Your task to perform on an android device: turn off notifications settings in the gmail app Image 0: 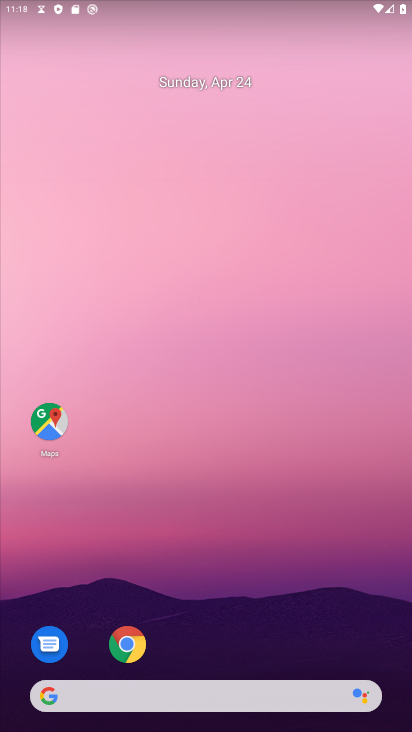
Step 0: drag from (372, 639) to (404, 13)
Your task to perform on an android device: turn off notifications settings in the gmail app Image 1: 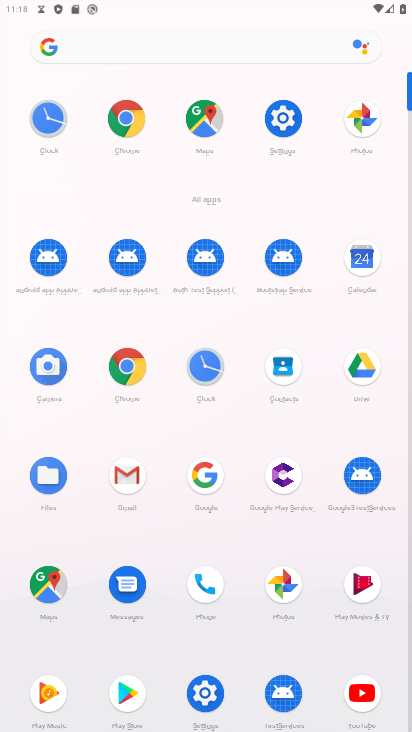
Step 1: click (130, 479)
Your task to perform on an android device: turn off notifications settings in the gmail app Image 2: 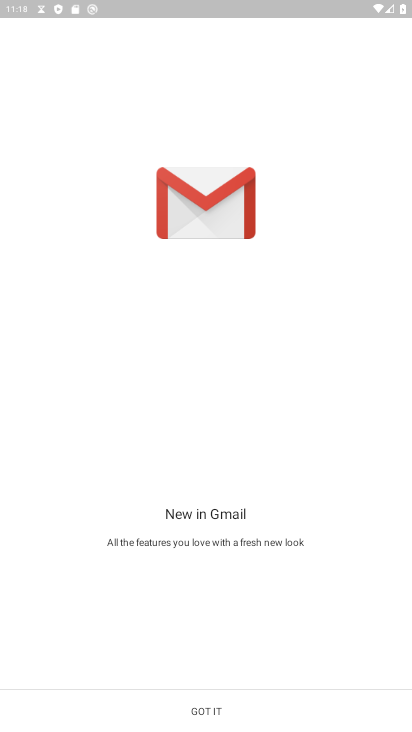
Step 2: click (210, 710)
Your task to perform on an android device: turn off notifications settings in the gmail app Image 3: 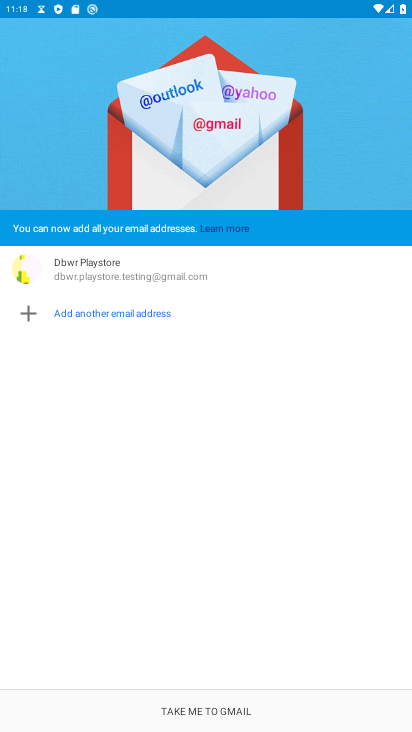
Step 3: click (188, 715)
Your task to perform on an android device: turn off notifications settings in the gmail app Image 4: 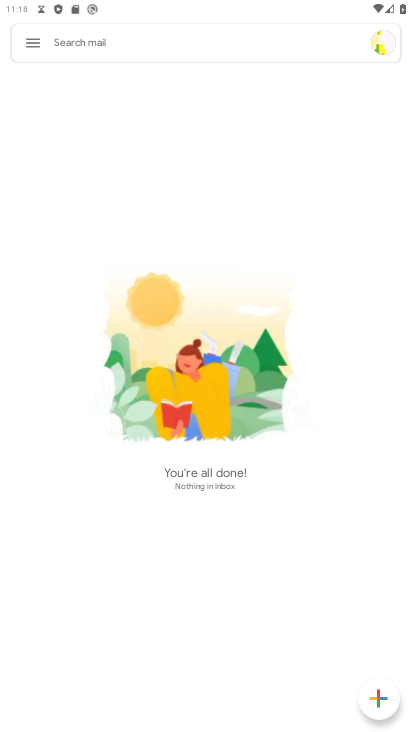
Step 4: click (35, 46)
Your task to perform on an android device: turn off notifications settings in the gmail app Image 5: 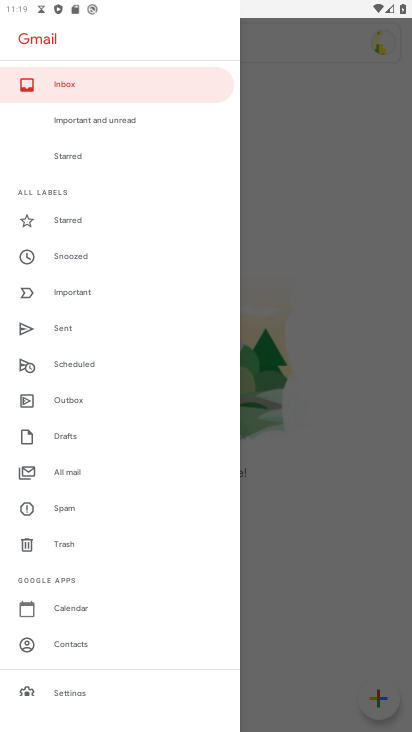
Step 5: drag from (111, 667) to (136, 511)
Your task to perform on an android device: turn off notifications settings in the gmail app Image 6: 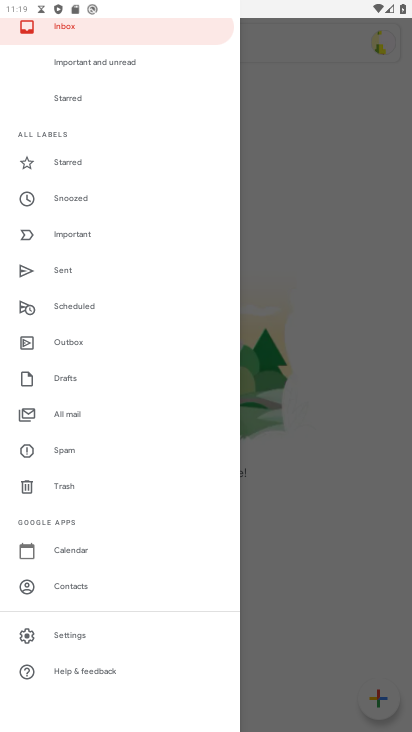
Step 6: click (59, 637)
Your task to perform on an android device: turn off notifications settings in the gmail app Image 7: 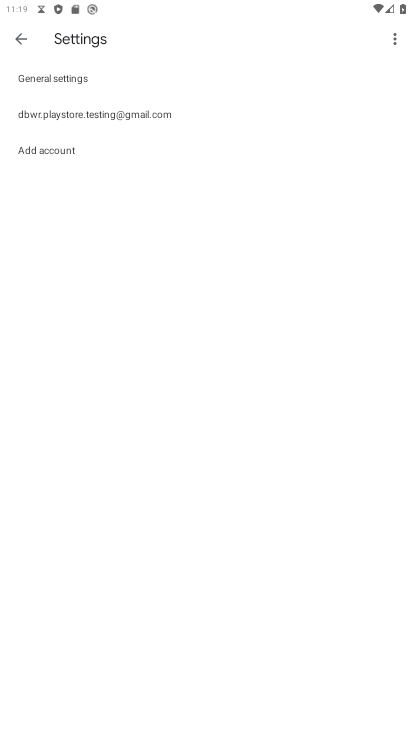
Step 7: click (45, 84)
Your task to perform on an android device: turn off notifications settings in the gmail app Image 8: 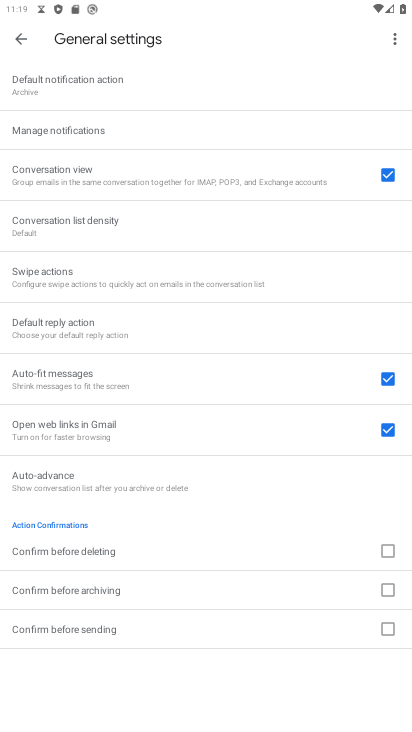
Step 8: click (126, 136)
Your task to perform on an android device: turn off notifications settings in the gmail app Image 9: 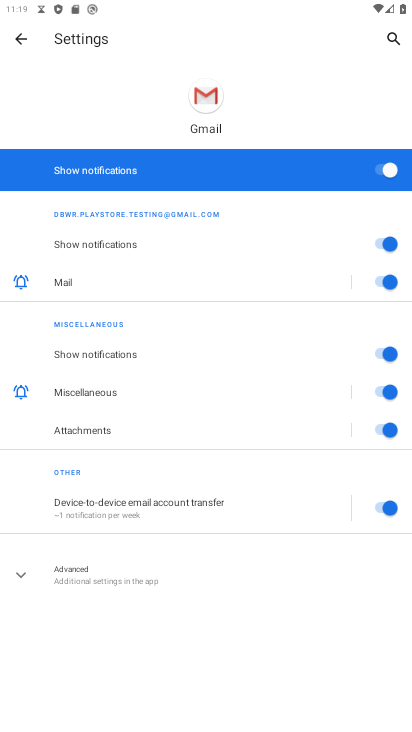
Step 9: click (395, 174)
Your task to perform on an android device: turn off notifications settings in the gmail app Image 10: 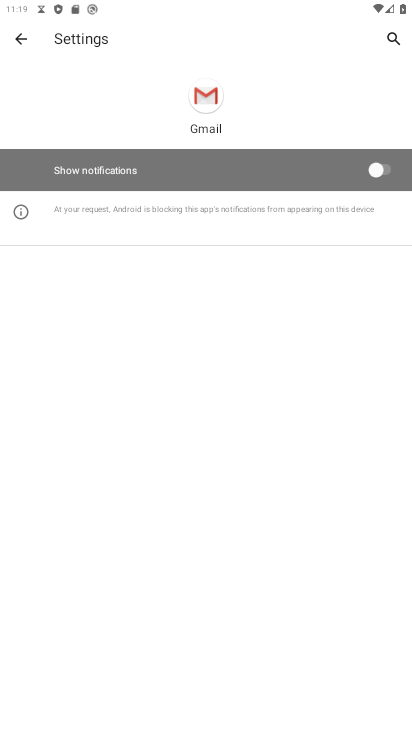
Step 10: task complete